Your task to perform on an android device: delete location history Image 0: 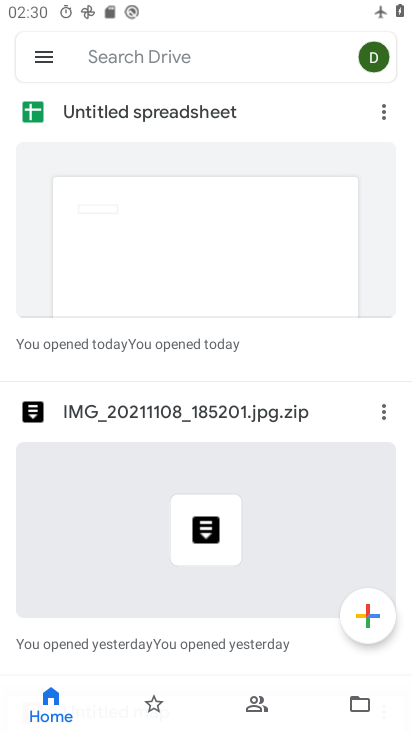
Step 0: press home button
Your task to perform on an android device: delete location history Image 1: 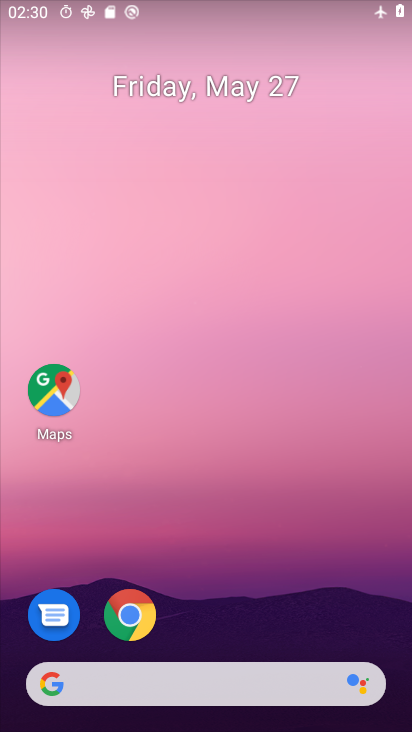
Step 1: drag from (342, 618) to (352, 93)
Your task to perform on an android device: delete location history Image 2: 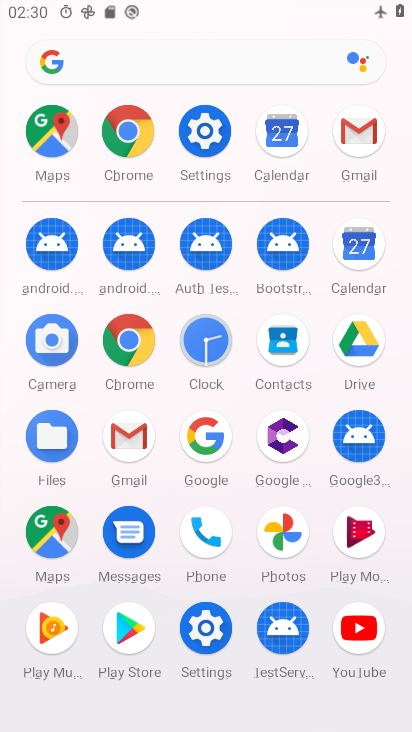
Step 2: click (42, 542)
Your task to perform on an android device: delete location history Image 3: 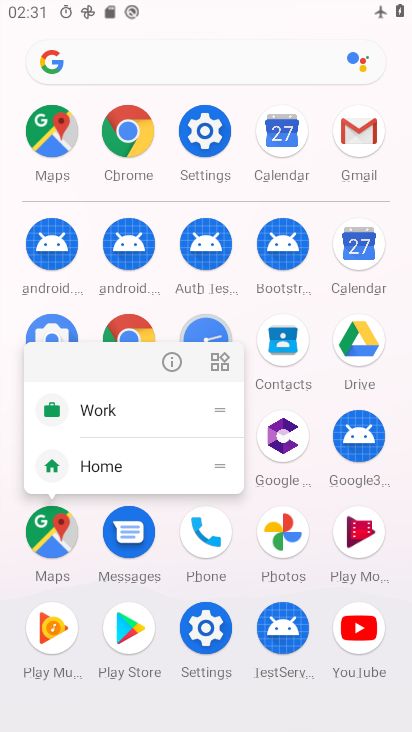
Step 3: click (42, 541)
Your task to perform on an android device: delete location history Image 4: 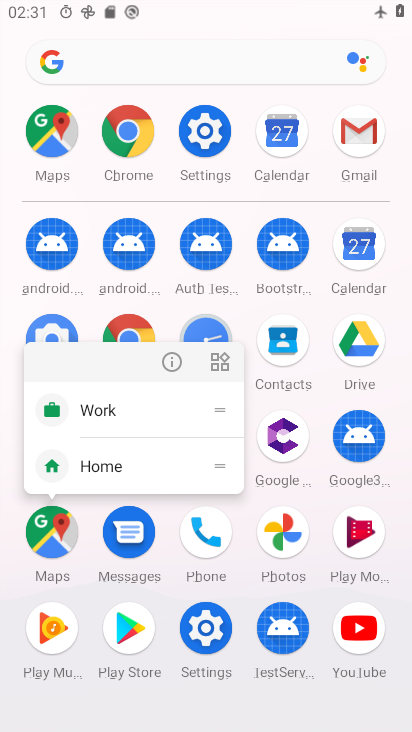
Step 4: click (42, 541)
Your task to perform on an android device: delete location history Image 5: 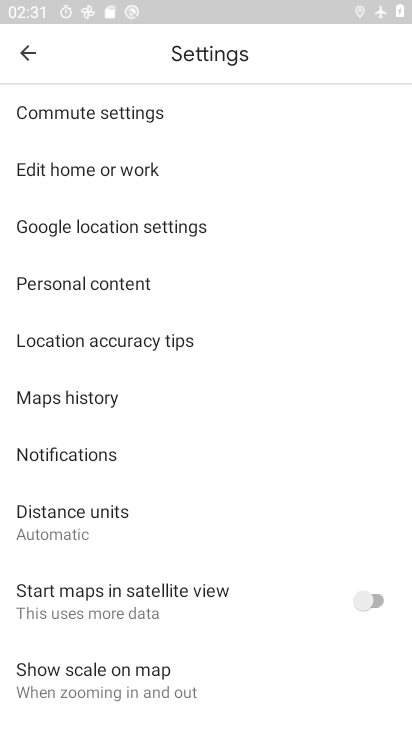
Step 5: click (32, 59)
Your task to perform on an android device: delete location history Image 6: 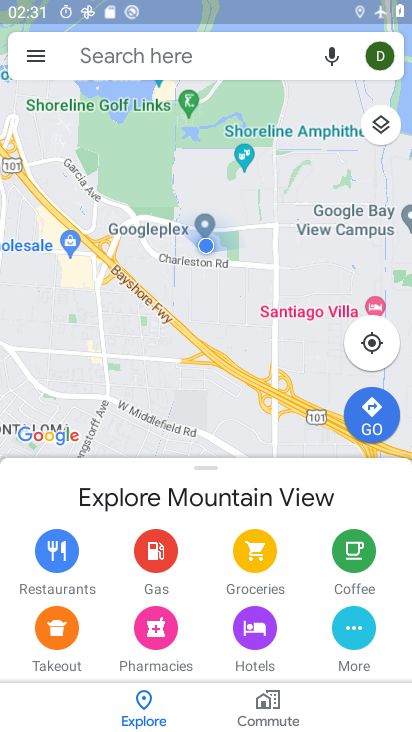
Step 6: click (35, 55)
Your task to perform on an android device: delete location history Image 7: 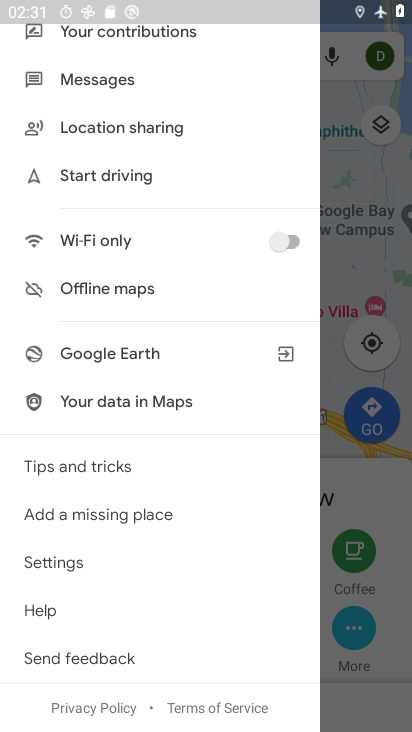
Step 7: drag from (198, 160) to (200, 342)
Your task to perform on an android device: delete location history Image 8: 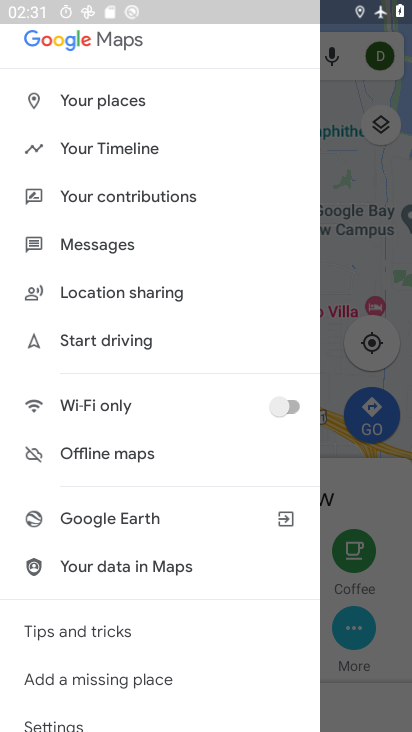
Step 8: drag from (201, 121) to (200, 276)
Your task to perform on an android device: delete location history Image 9: 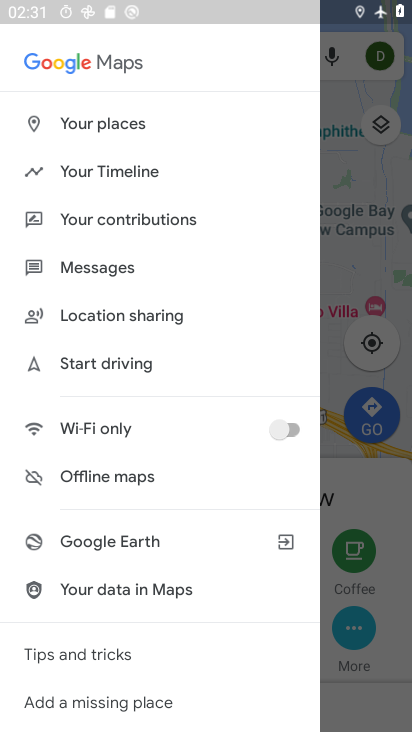
Step 9: click (132, 181)
Your task to perform on an android device: delete location history Image 10: 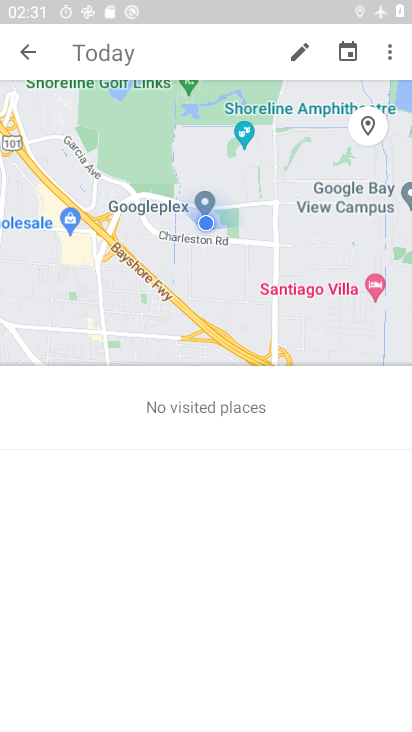
Step 10: click (388, 58)
Your task to perform on an android device: delete location history Image 11: 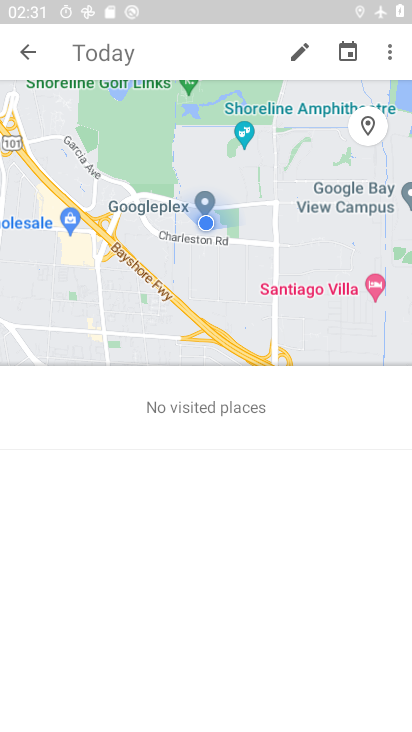
Step 11: click (388, 58)
Your task to perform on an android device: delete location history Image 12: 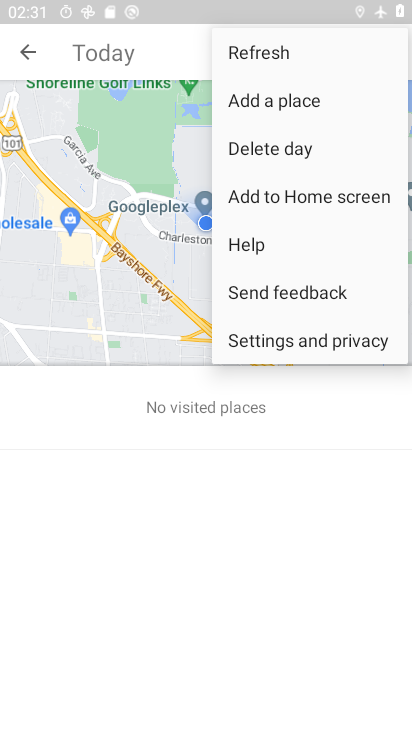
Step 12: click (357, 339)
Your task to perform on an android device: delete location history Image 13: 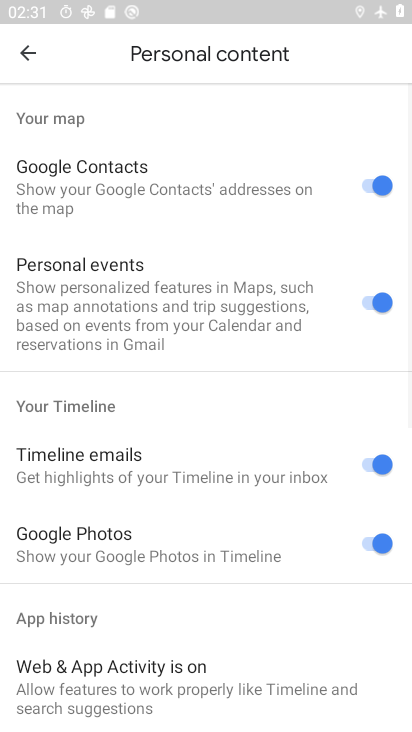
Step 13: drag from (304, 399) to (304, 287)
Your task to perform on an android device: delete location history Image 14: 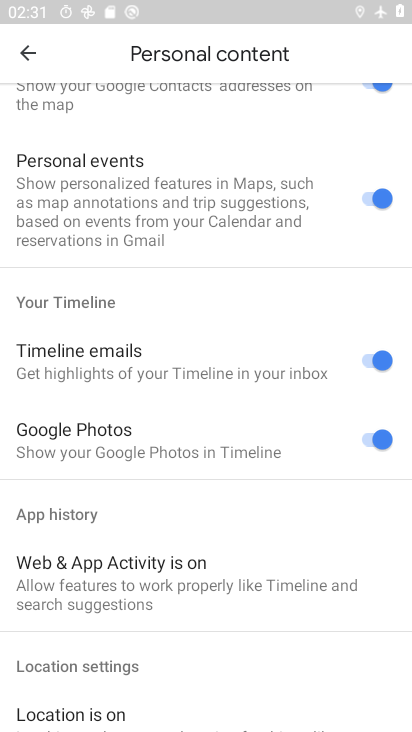
Step 14: drag from (285, 444) to (299, 352)
Your task to perform on an android device: delete location history Image 15: 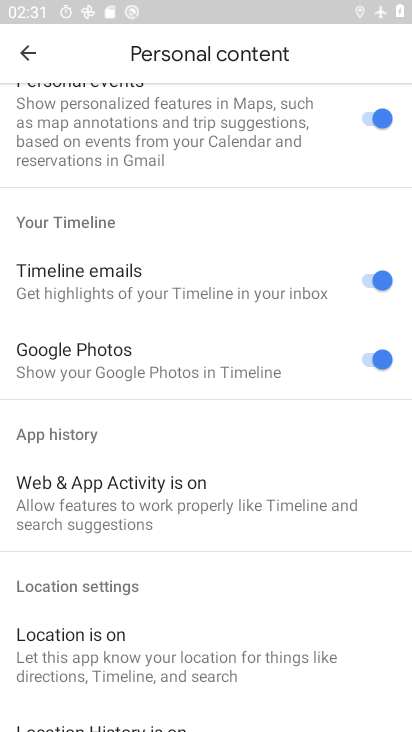
Step 15: drag from (289, 508) to (302, 425)
Your task to perform on an android device: delete location history Image 16: 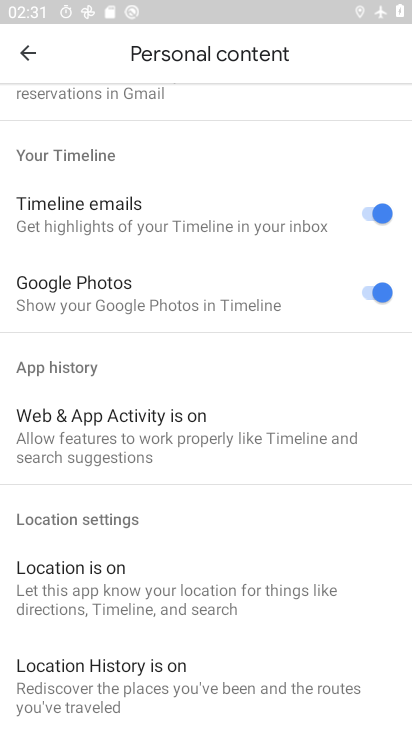
Step 16: drag from (291, 516) to (296, 365)
Your task to perform on an android device: delete location history Image 17: 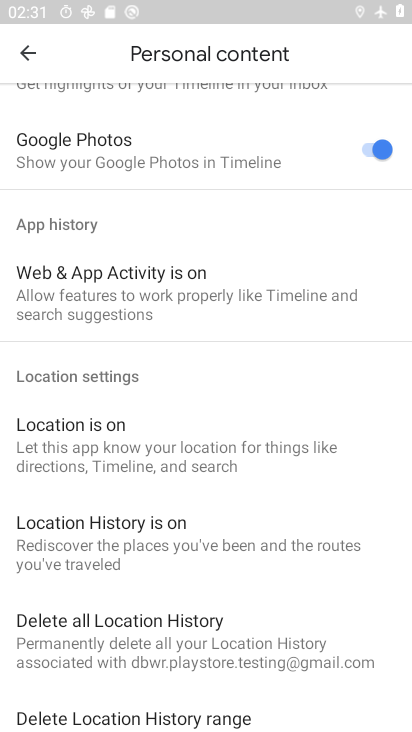
Step 17: drag from (288, 570) to (291, 337)
Your task to perform on an android device: delete location history Image 18: 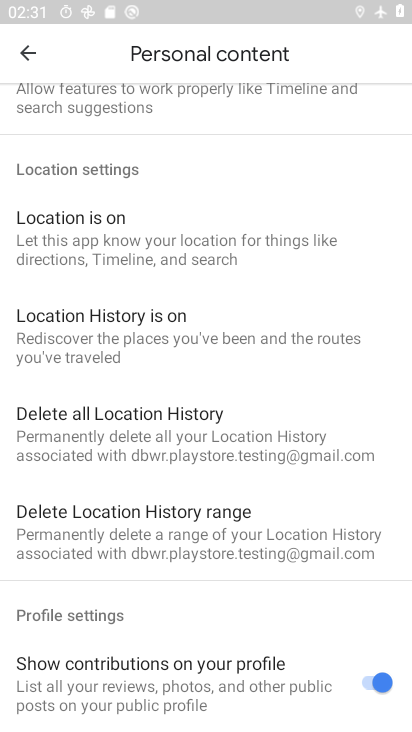
Step 18: click (246, 442)
Your task to perform on an android device: delete location history Image 19: 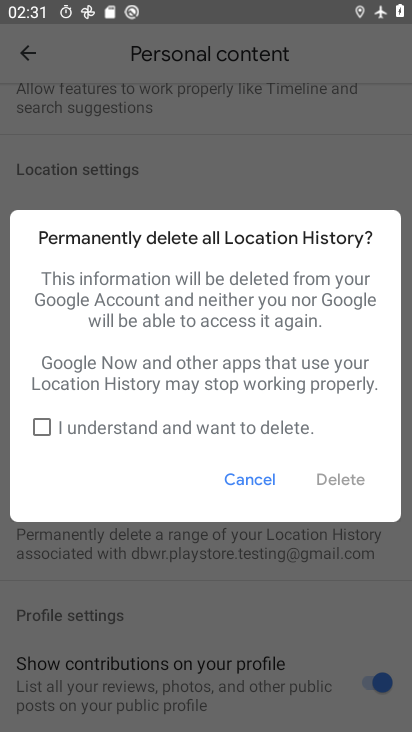
Step 19: click (44, 423)
Your task to perform on an android device: delete location history Image 20: 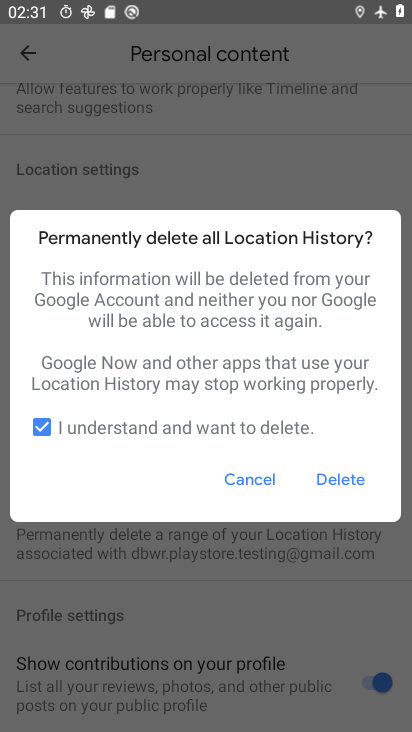
Step 20: click (353, 492)
Your task to perform on an android device: delete location history Image 21: 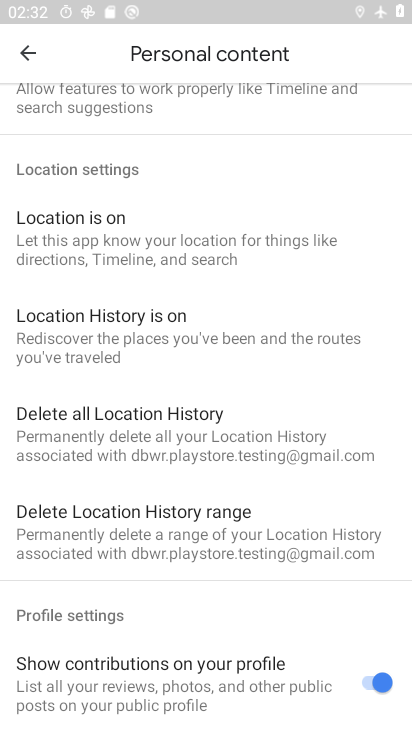
Step 21: task complete